Your task to perform on an android device: Go to ESPN.com Image 0: 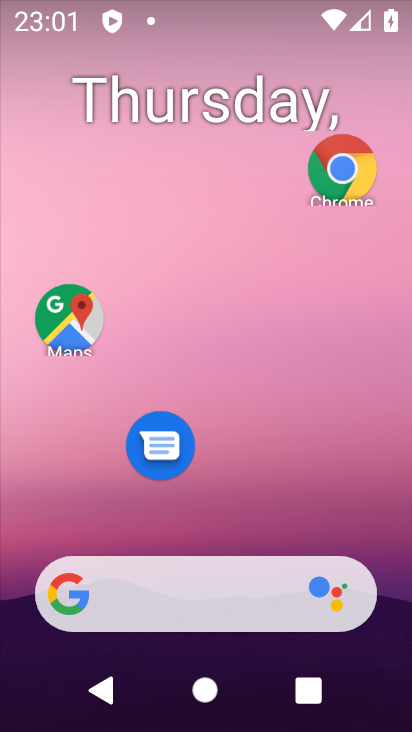
Step 0: click (386, 311)
Your task to perform on an android device: Go to ESPN.com Image 1: 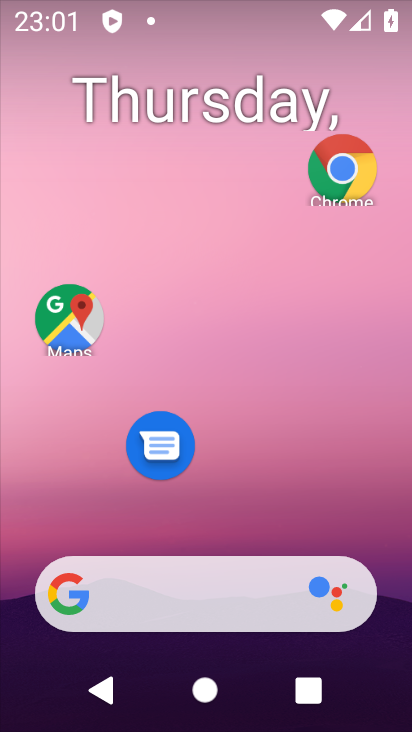
Step 1: click (339, 171)
Your task to perform on an android device: Go to ESPN.com Image 2: 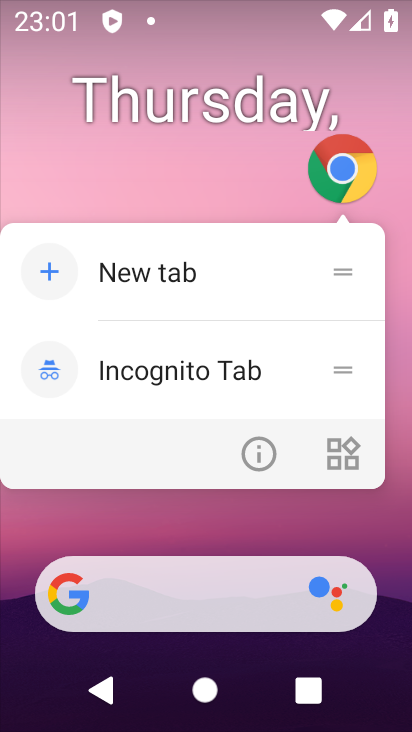
Step 2: click (266, 446)
Your task to perform on an android device: Go to ESPN.com Image 3: 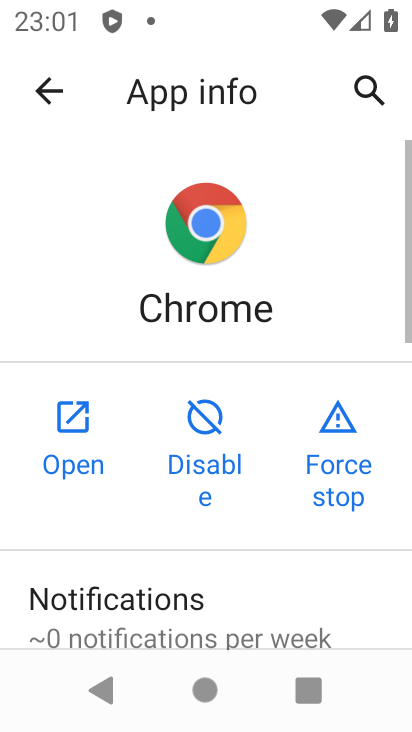
Step 3: click (88, 437)
Your task to perform on an android device: Go to ESPN.com Image 4: 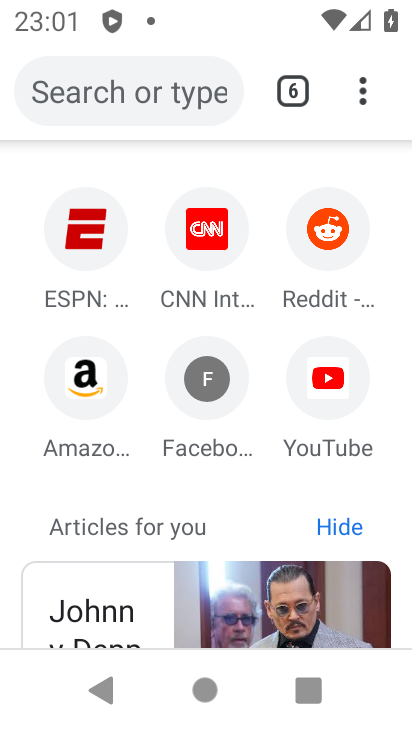
Step 4: drag from (259, 475) to (278, 570)
Your task to perform on an android device: Go to ESPN.com Image 5: 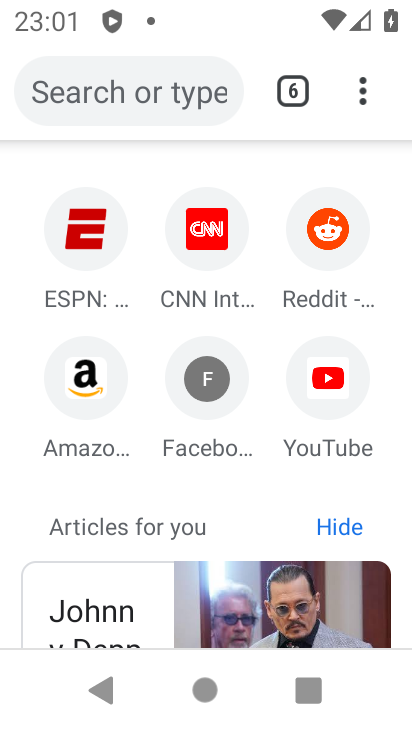
Step 5: click (96, 255)
Your task to perform on an android device: Go to ESPN.com Image 6: 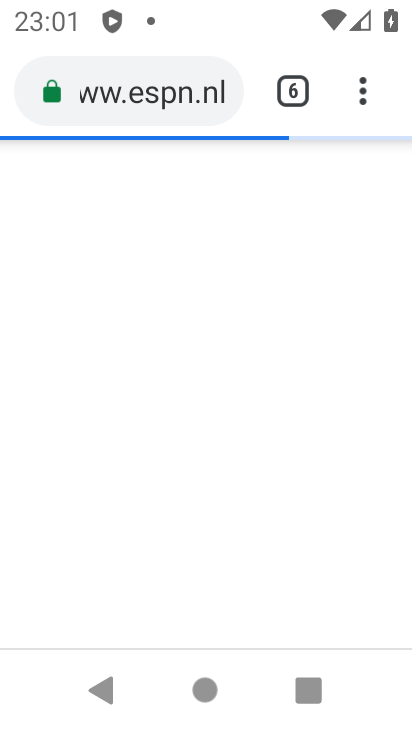
Step 6: task complete